Your task to perform on an android device: Open settings Image 0: 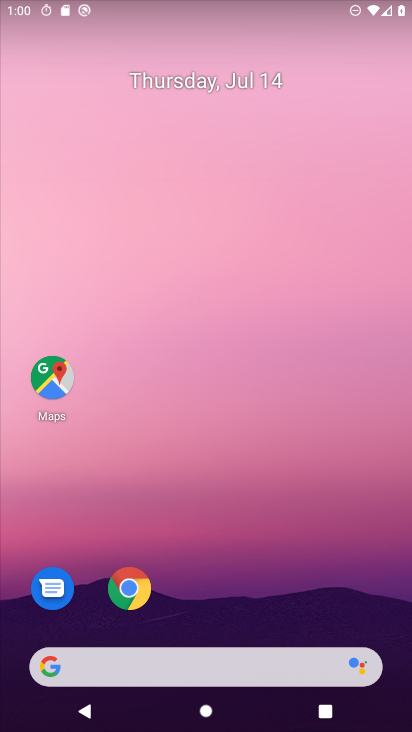
Step 0: drag from (190, 671) to (351, 113)
Your task to perform on an android device: Open settings Image 1: 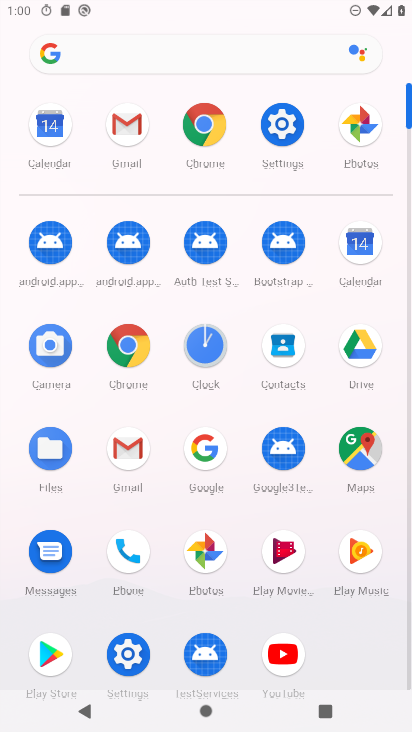
Step 1: click (278, 126)
Your task to perform on an android device: Open settings Image 2: 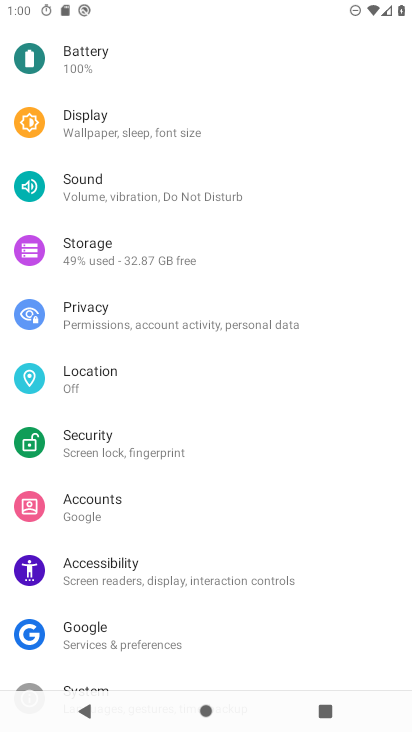
Step 2: task complete